Your task to perform on an android device: uninstall "Google Find My Device" Image 0: 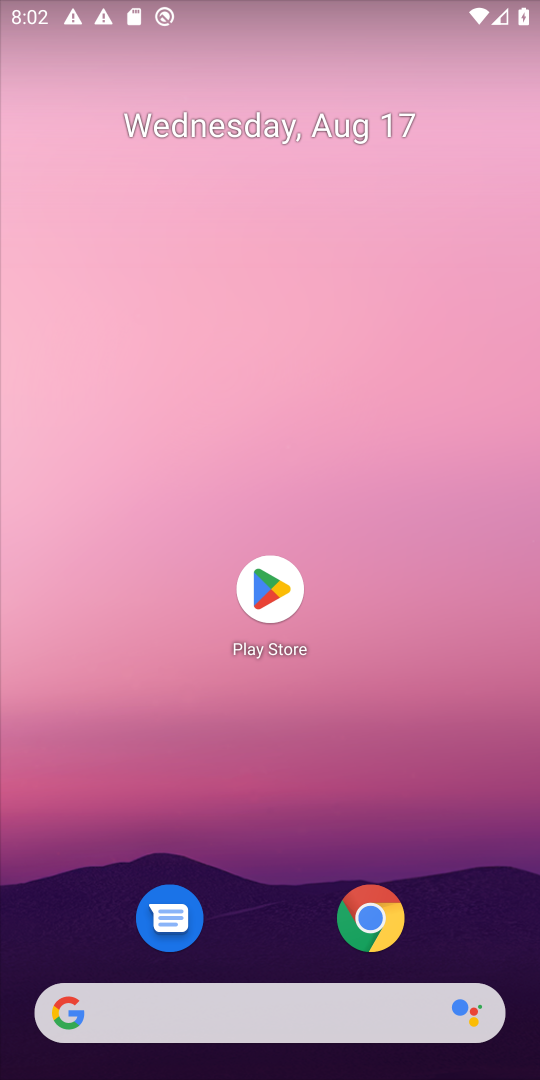
Step 0: click (263, 595)
Your task to perform on an android device: uninstall "Google Find My Device" Image 1: 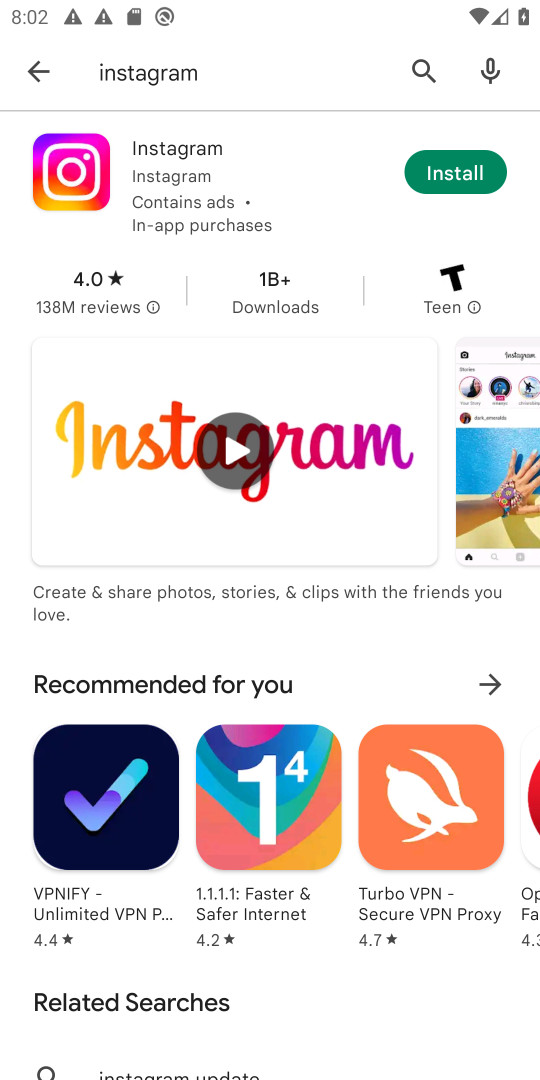
Step 1: click (417, 67)
Your task to perform on an android device: uninstall "Google Find My Device" Image 2: 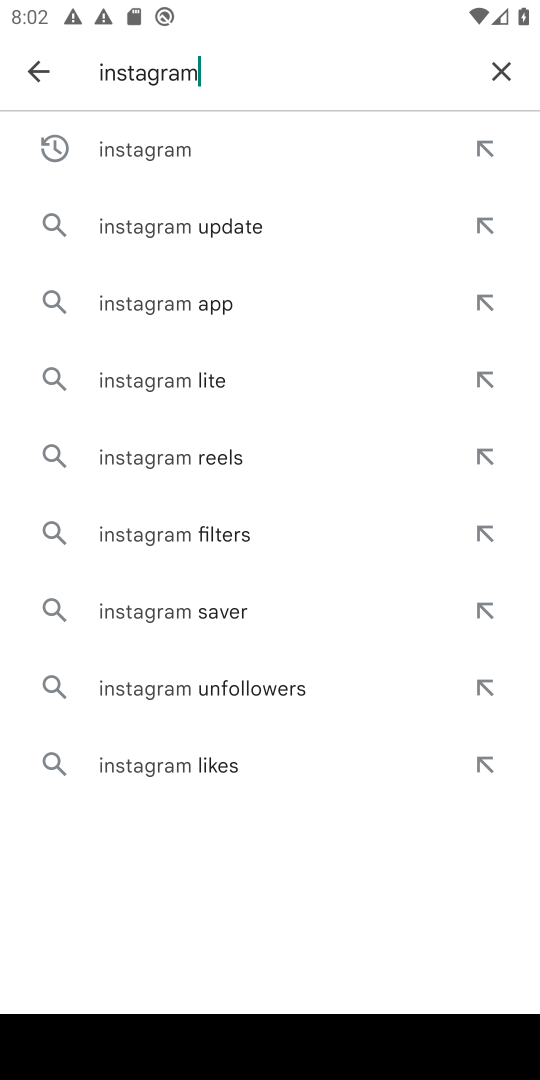
Step 2: click (502, 66)
Your task to perform on an android device: uninstall "Google Find My Device" Image 3: 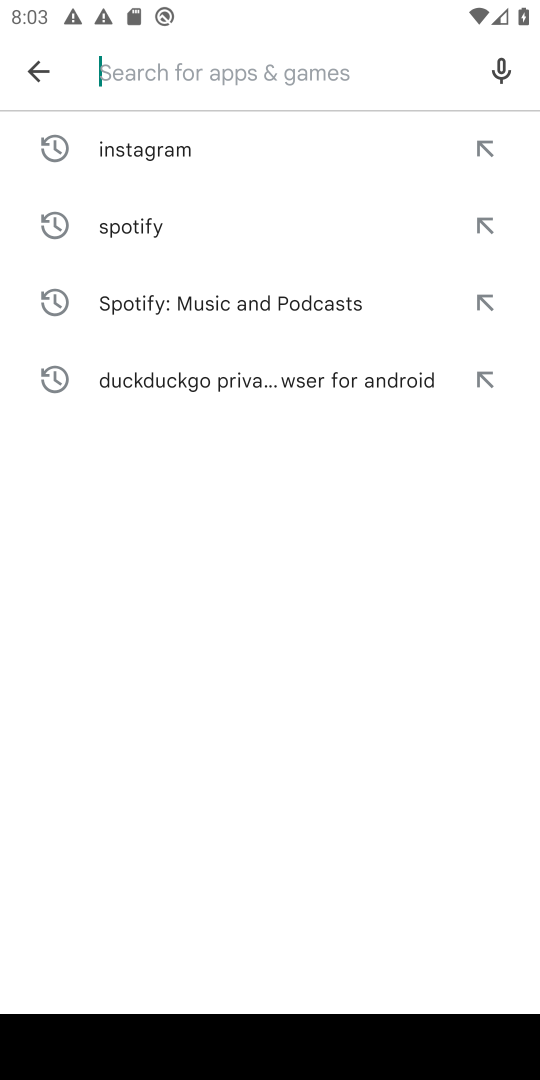
Step 3: type "Google Find My Device"
Your task to perform on an android device: uninstall "Google Find My Device" Image 4: 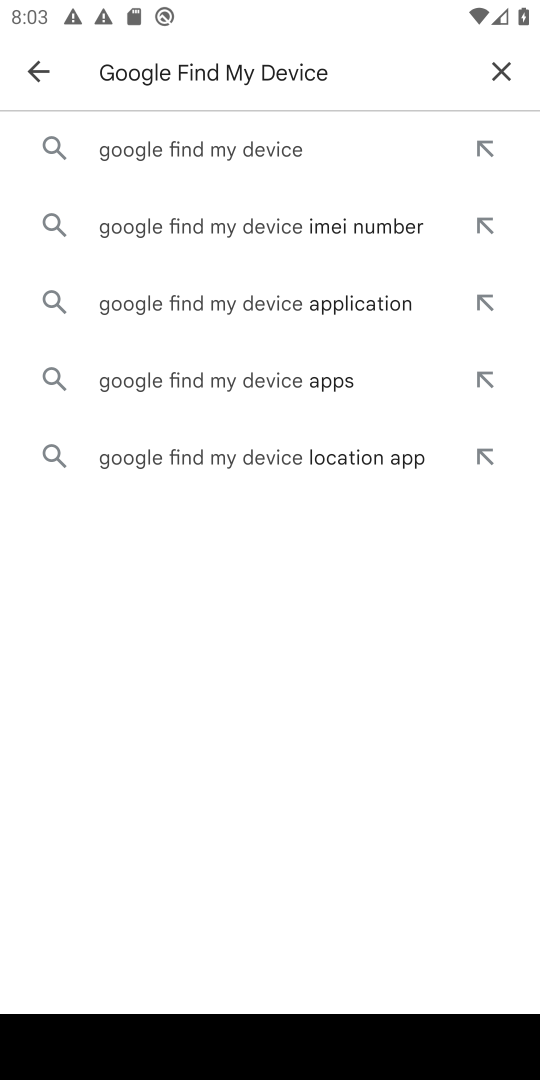
Step 4: click (141, 144)
Your task to perform on an android device: uninstall "Google Find My Device" Image 5: 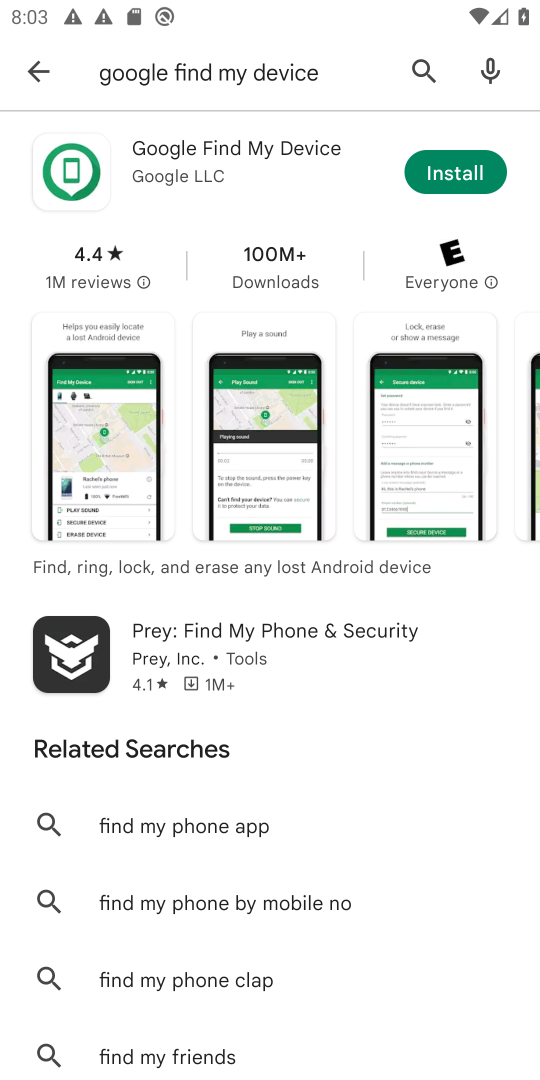
Step 5: task complete